Your task to perform on an android device: Open settings Image 0: 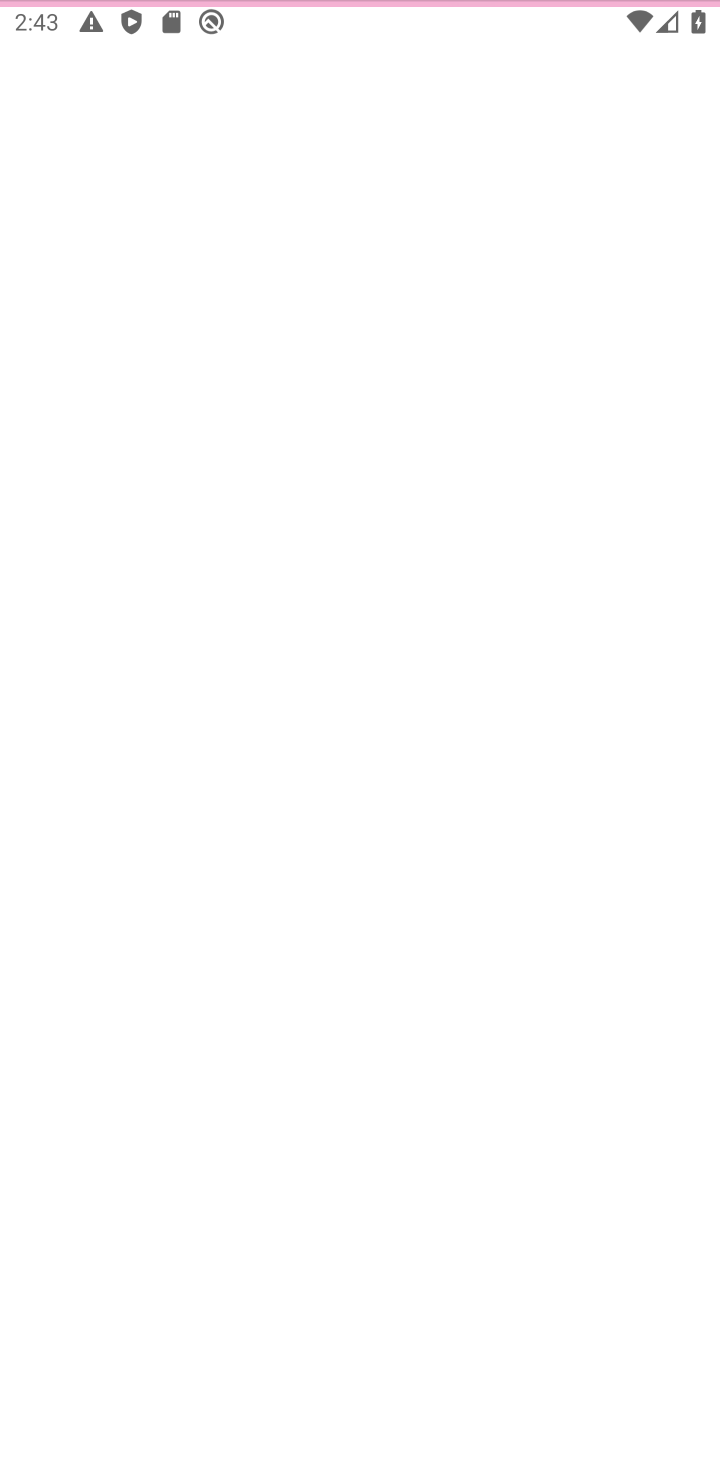
Step 0: press home button
Your task to perform on an android device: Open settings Image 1: 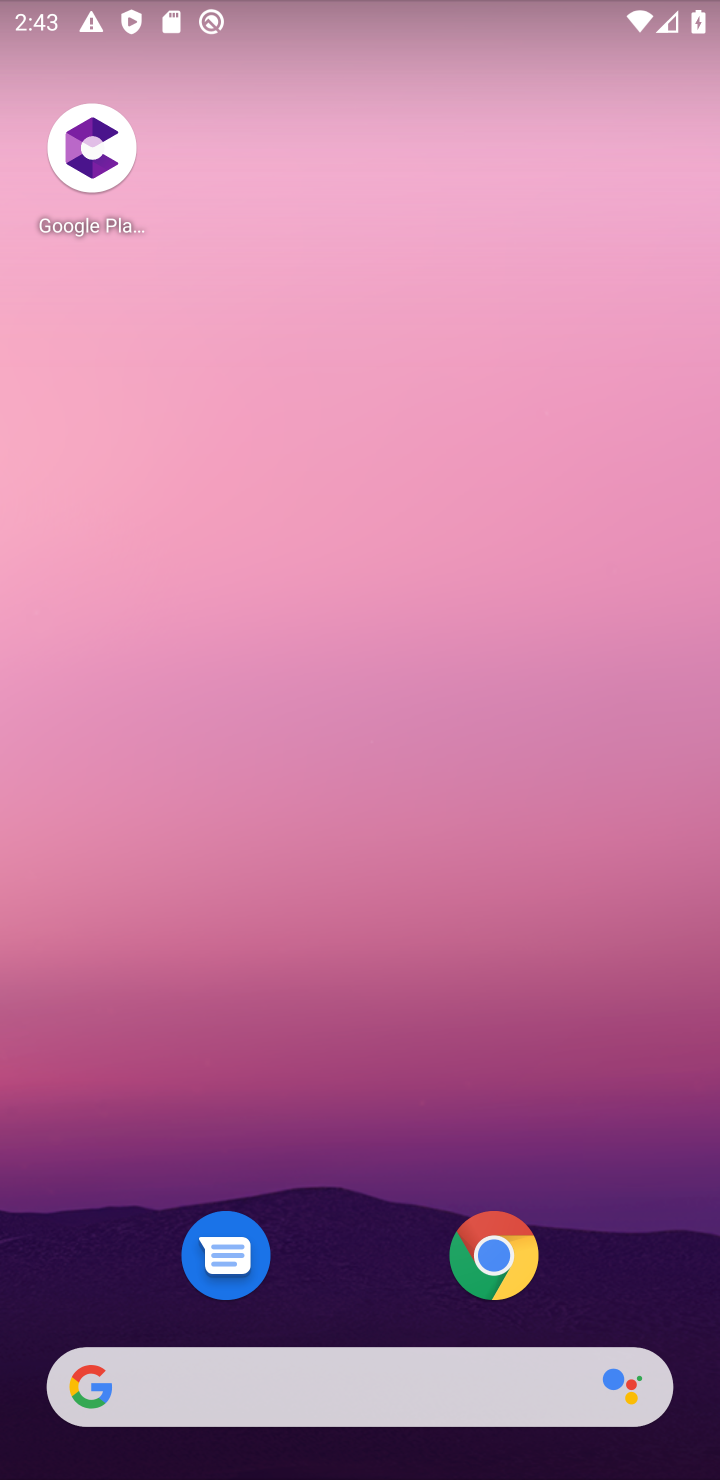
Step 1: drag from (310, 1125) to (345, 465)
Your task to perform on an android device: Open settings Image 2: 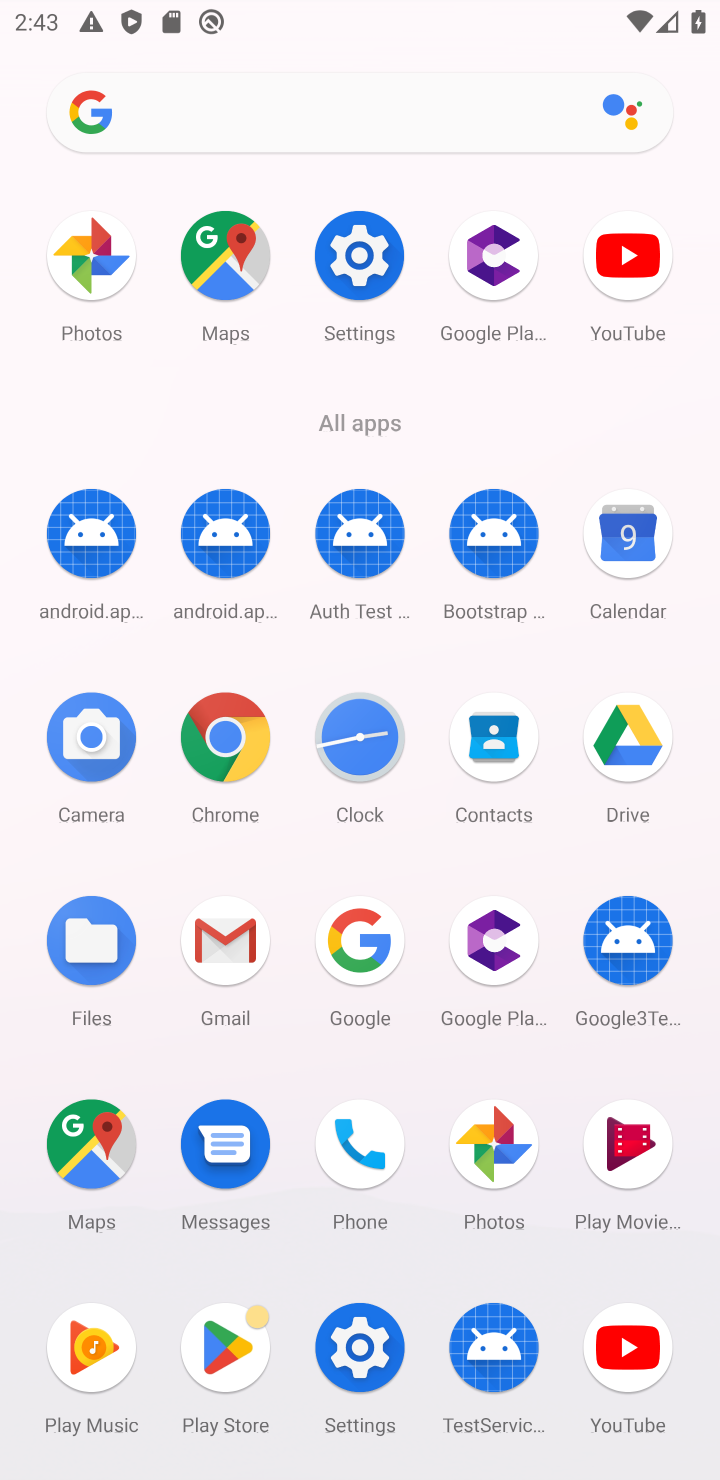
Step 2: click (351, 238)
Your task to perform on an android device: Open settings Image 3: 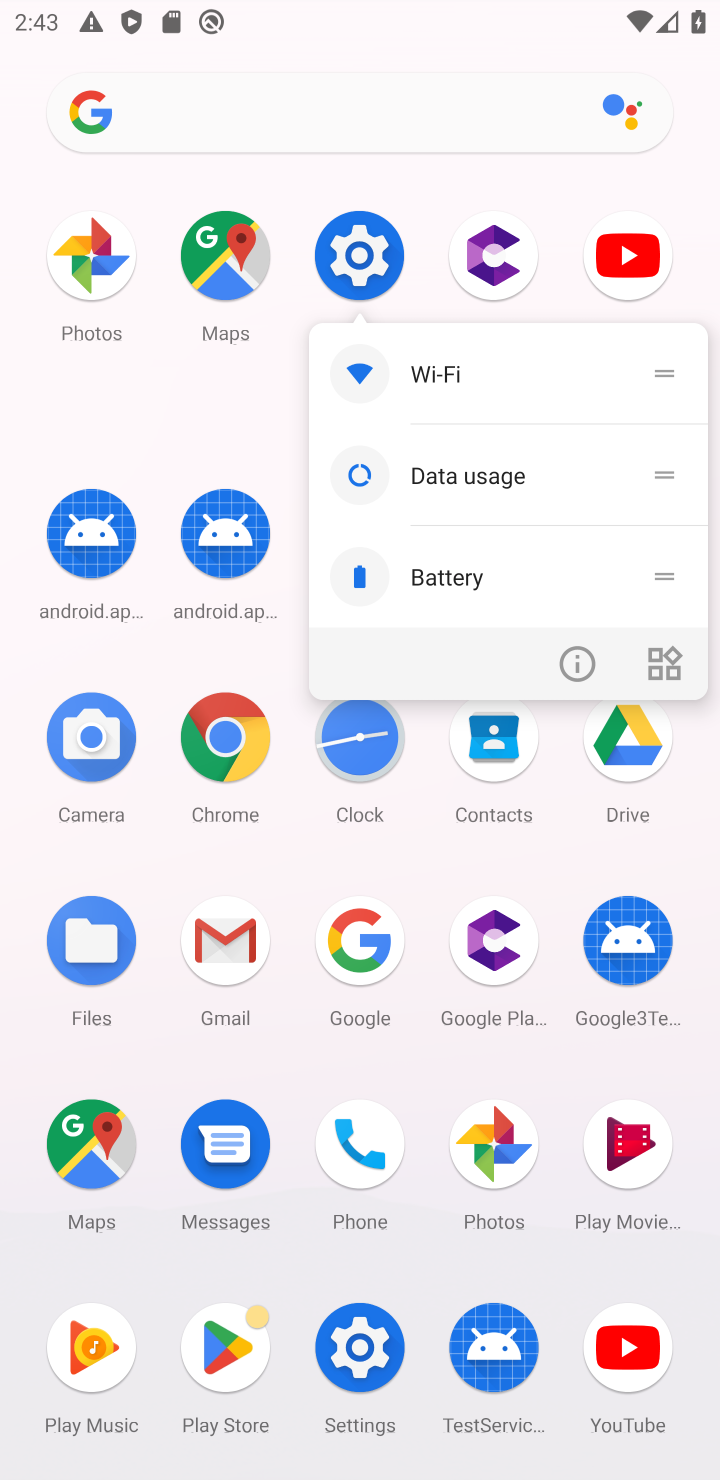
Step 3: click (351, 238)
Your task to perform on an android device: Open settings Image 4: 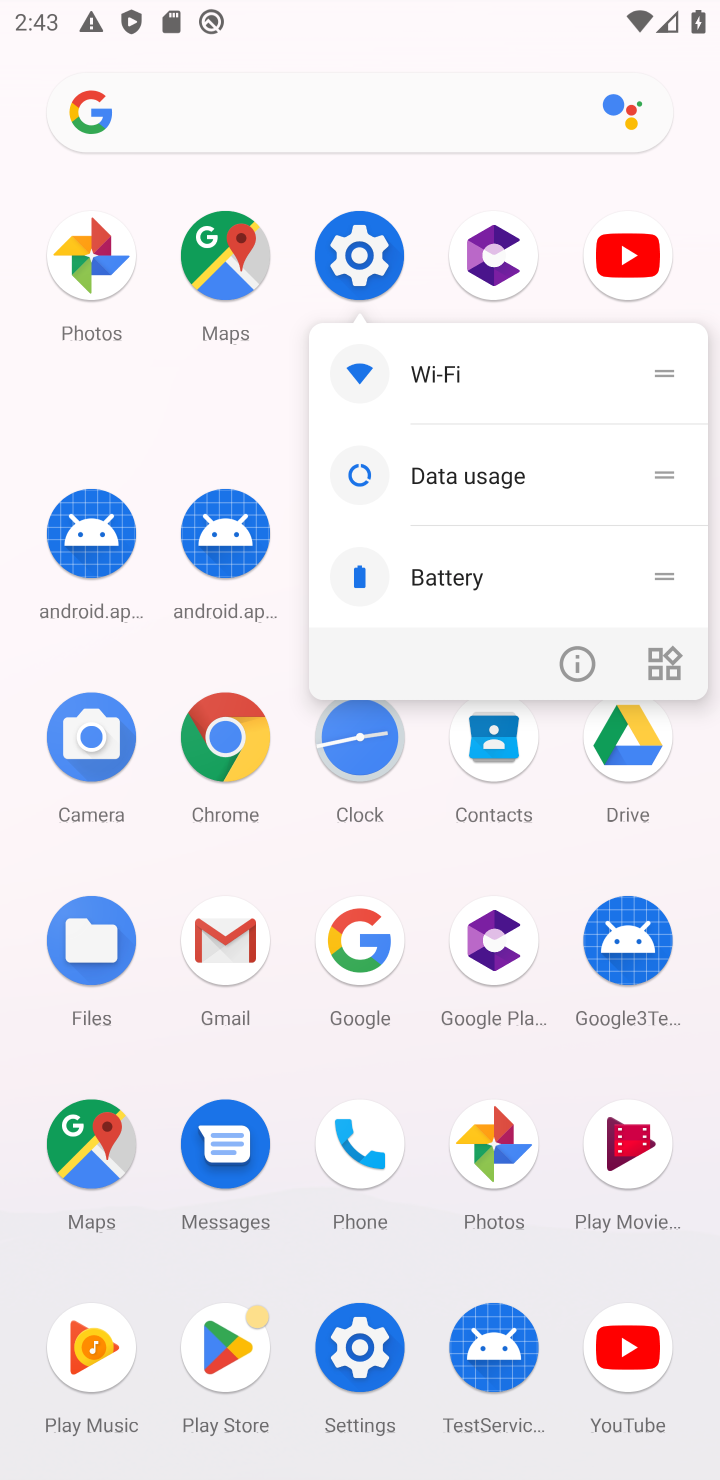
Step 4: click (355, 290)
Your task to perform on an android device: Open settings Image 5: 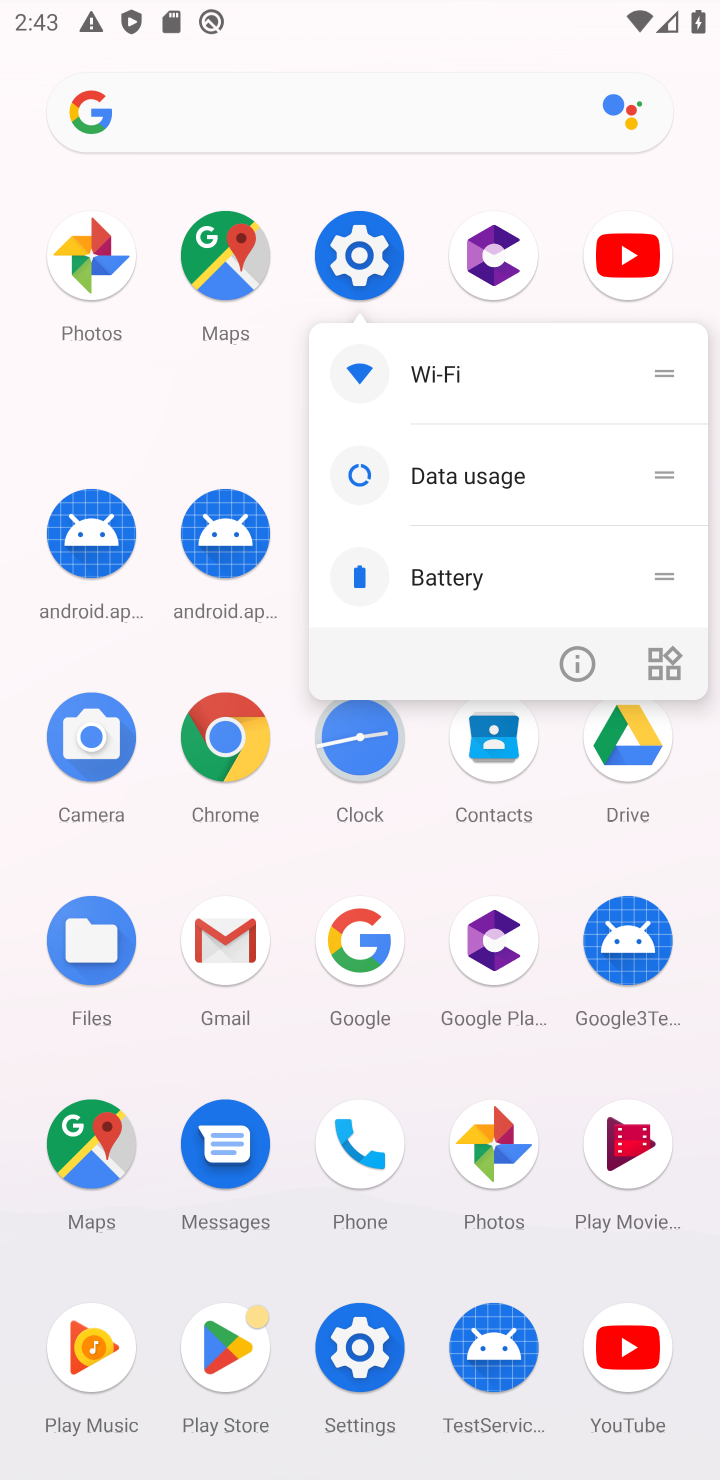
Step 5: click (349, 235)
Your task to perform on an android device: Open settings Image 6: 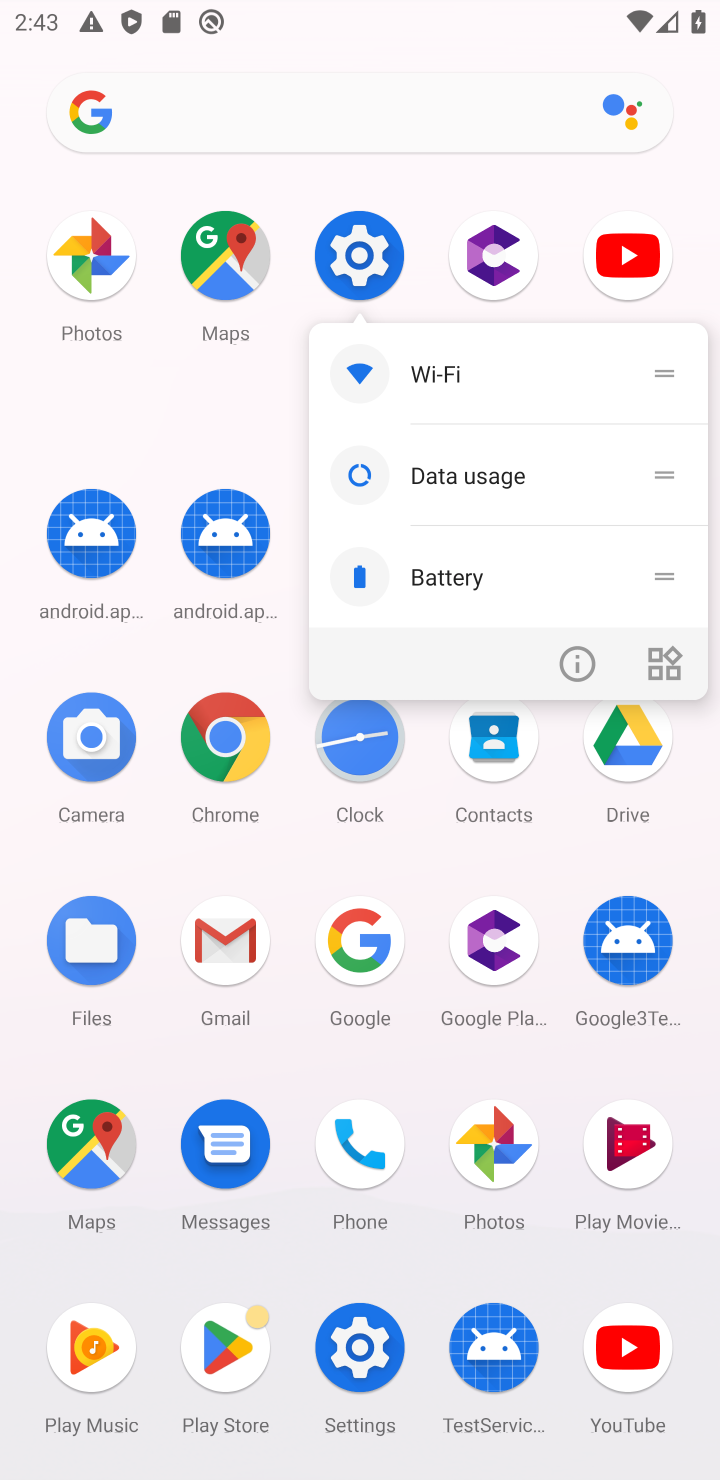
Step 6: click (339, 1360)
Your task to perform on an android device: Open settings Image 7: 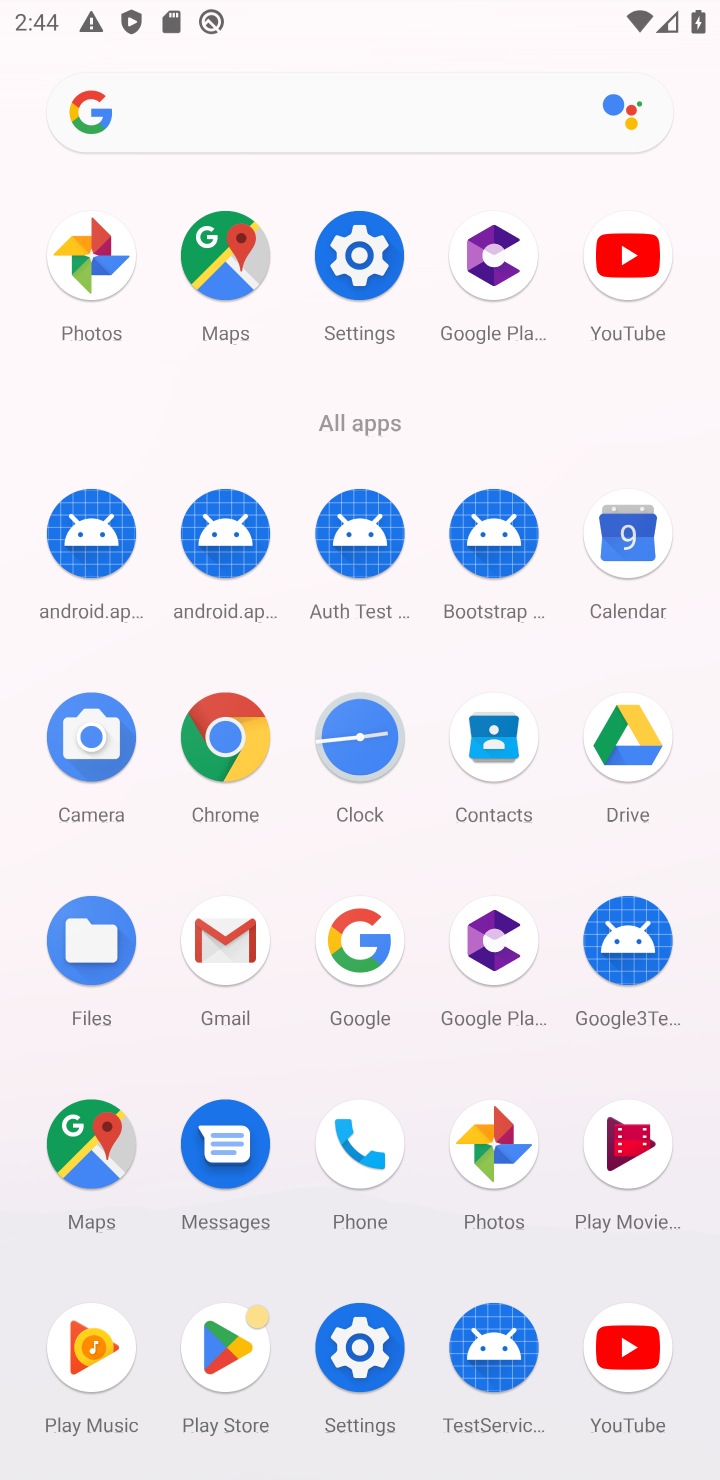
Step 7: click (367, 1339)
Your task to perform on an android device: Open settings Image 8: 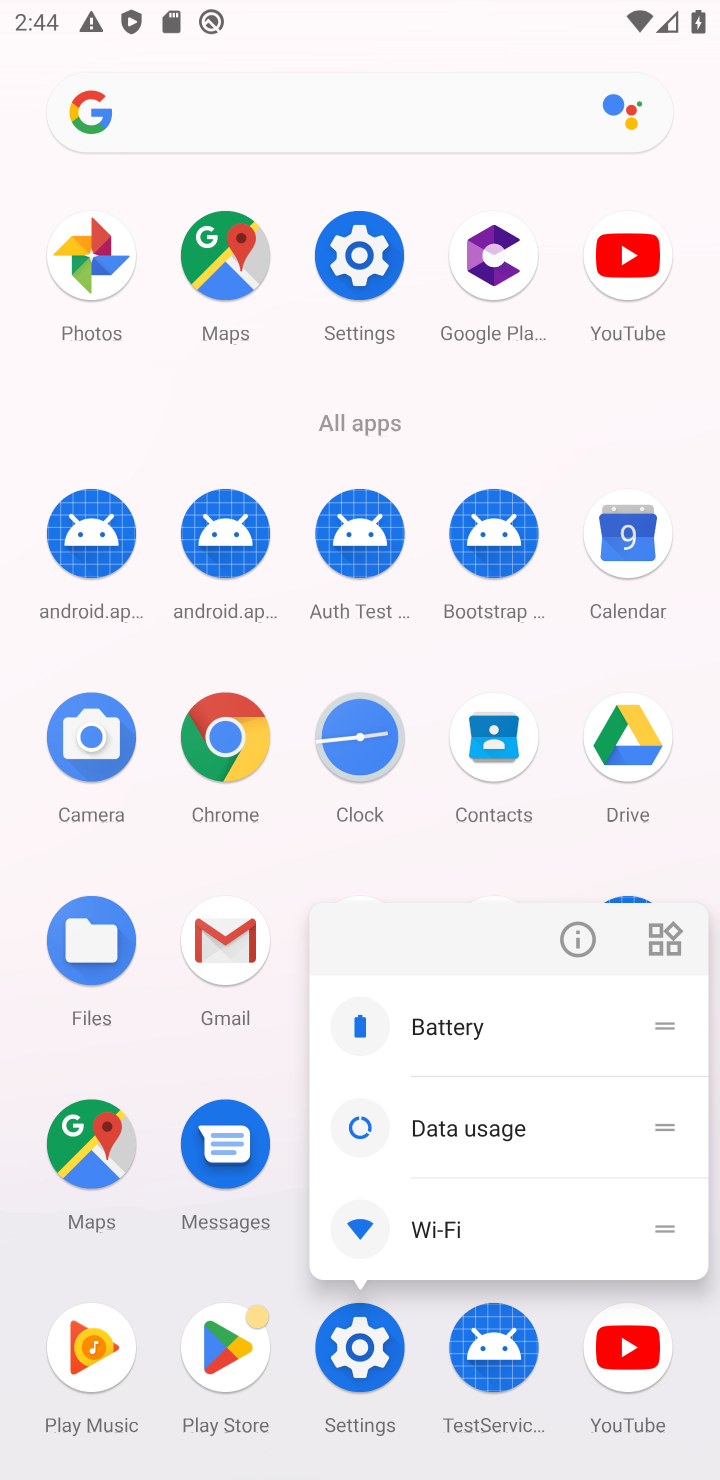
Step 8: click (367, 1339)
Your task to perform on an android device: Open settings Image 9: 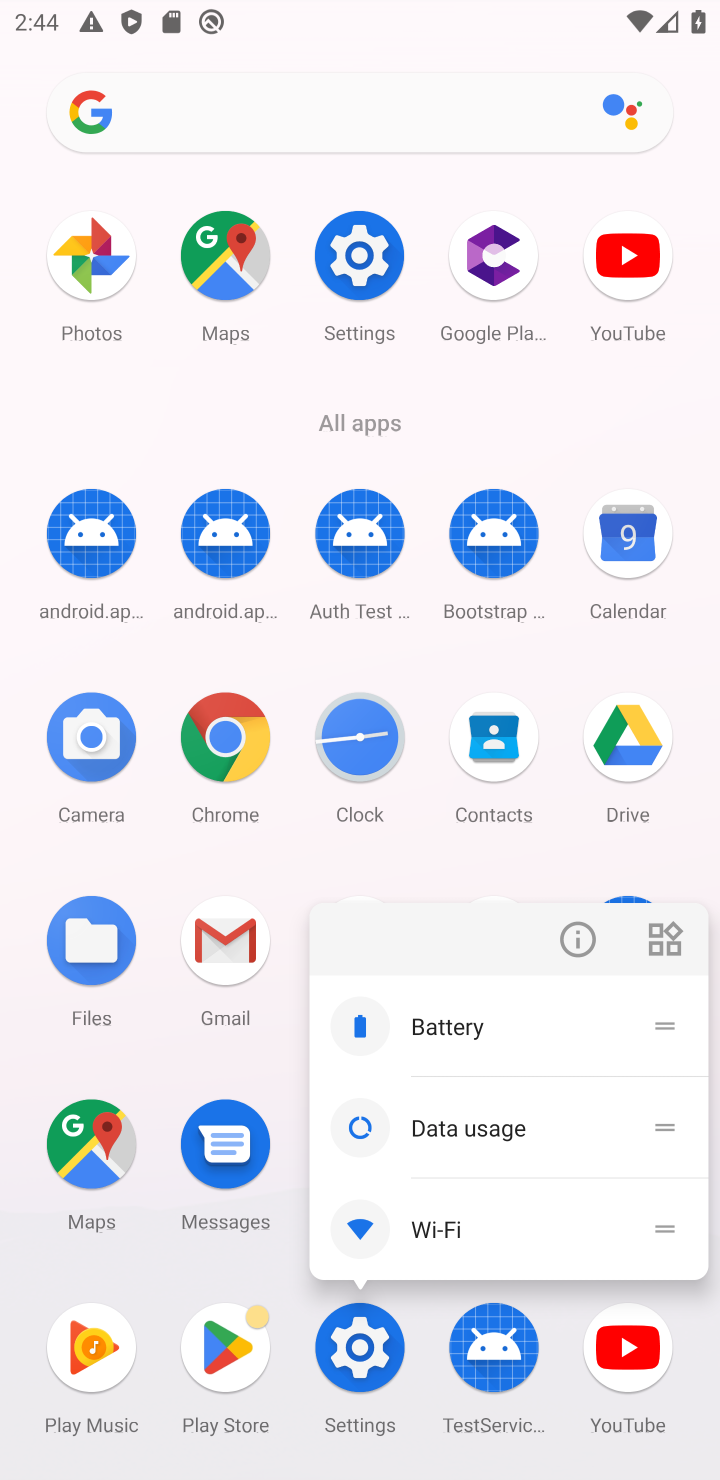
Step 9: click (367, 1339)
Your task to perform on an android device: Open settings Image 10: 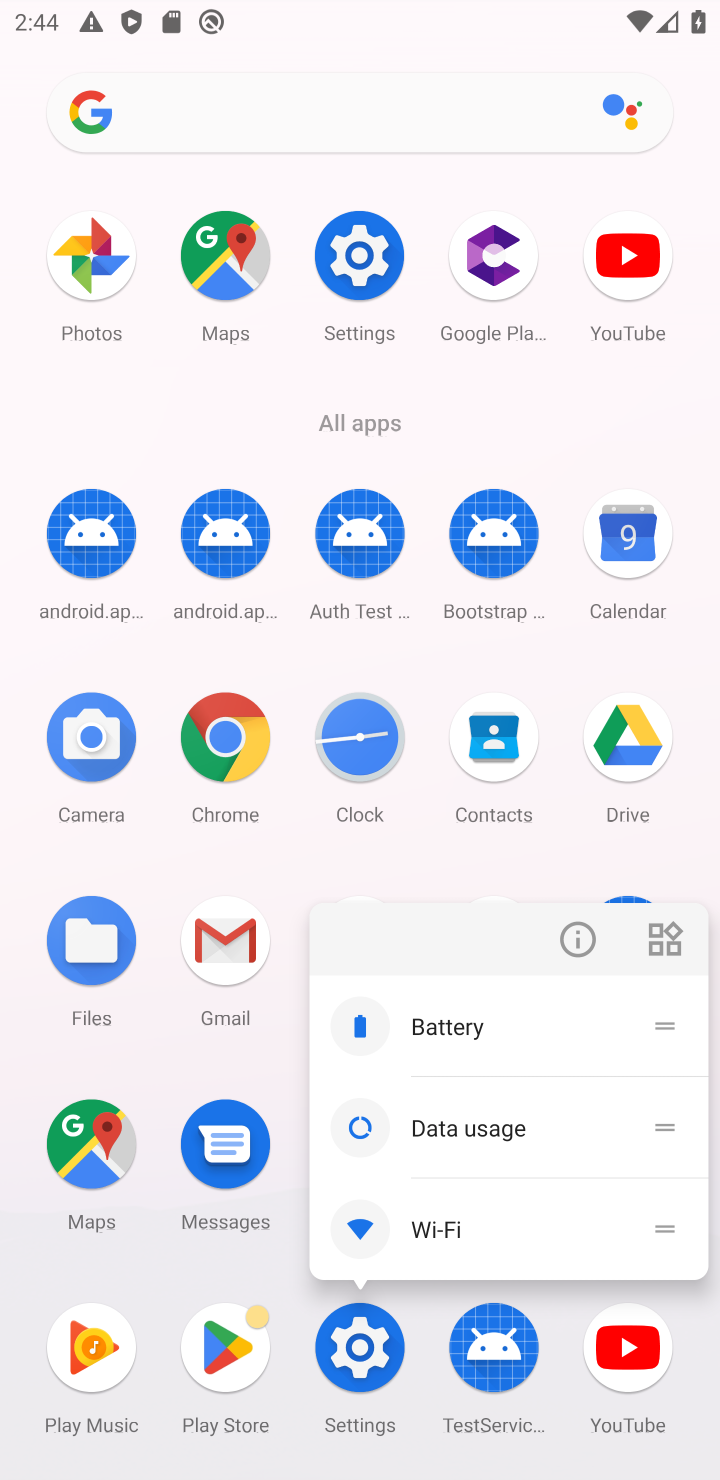
Step 10: click (369, 275)
Your task to perform on an android device: Open settings Image 11: 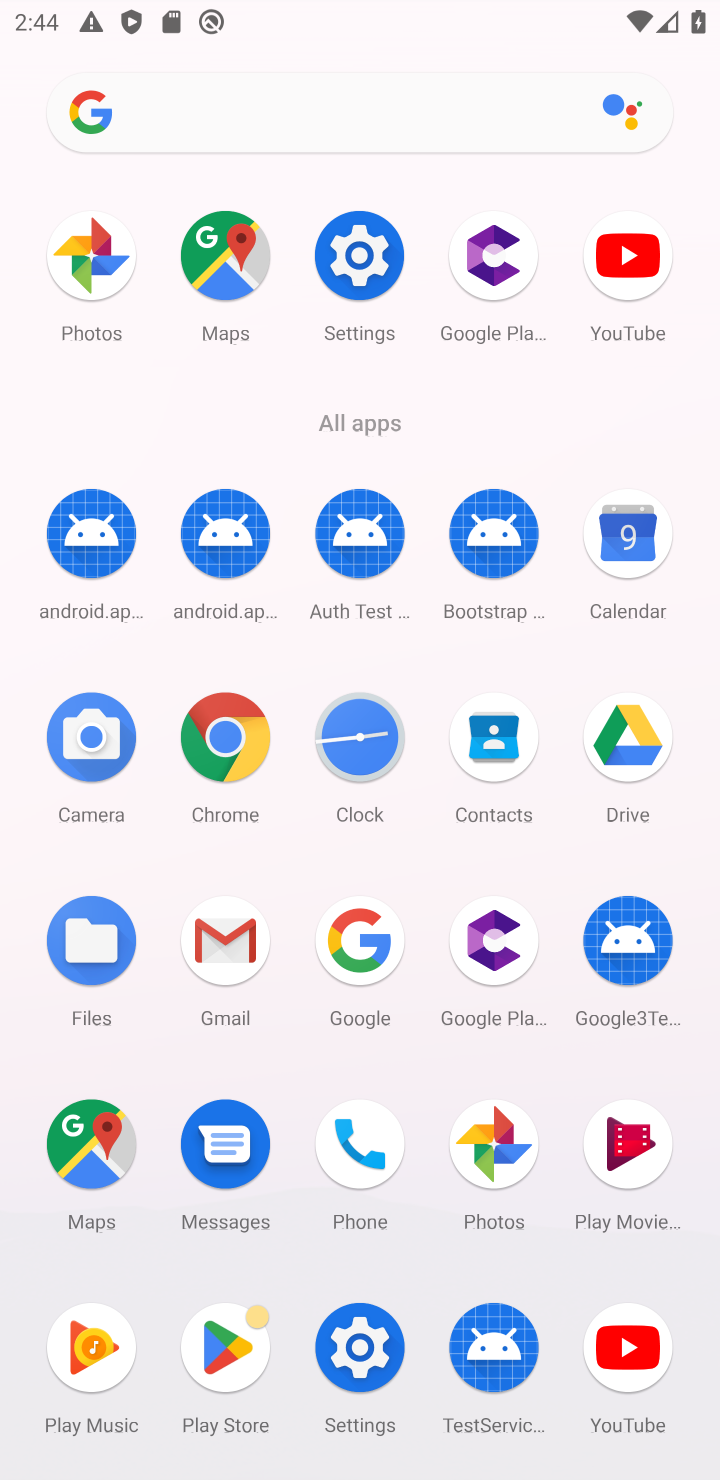
Step 11: click (361, 216)
Your task to perform on an android device: Open settings Image 12: 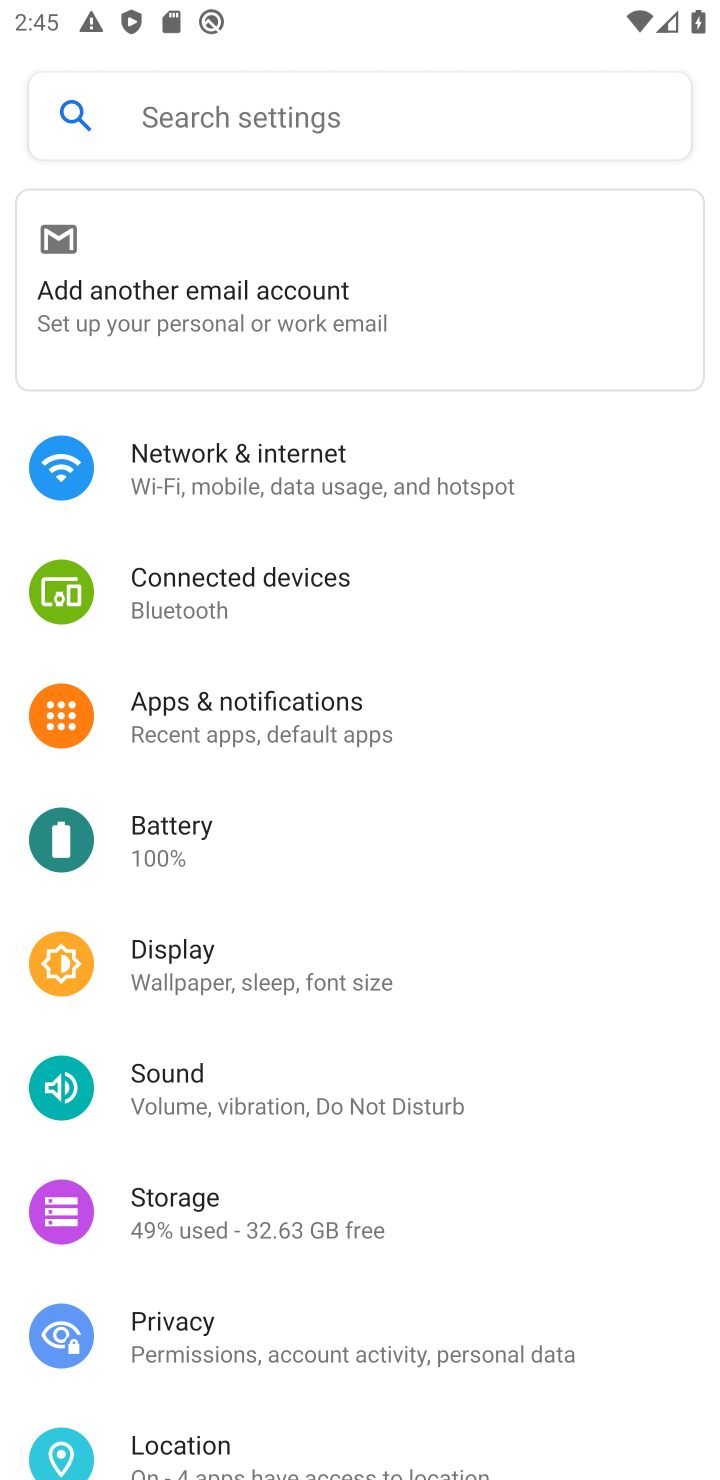
Step 12: task complete